Your task to perform on an android device: Open Reddit.com Image 0: 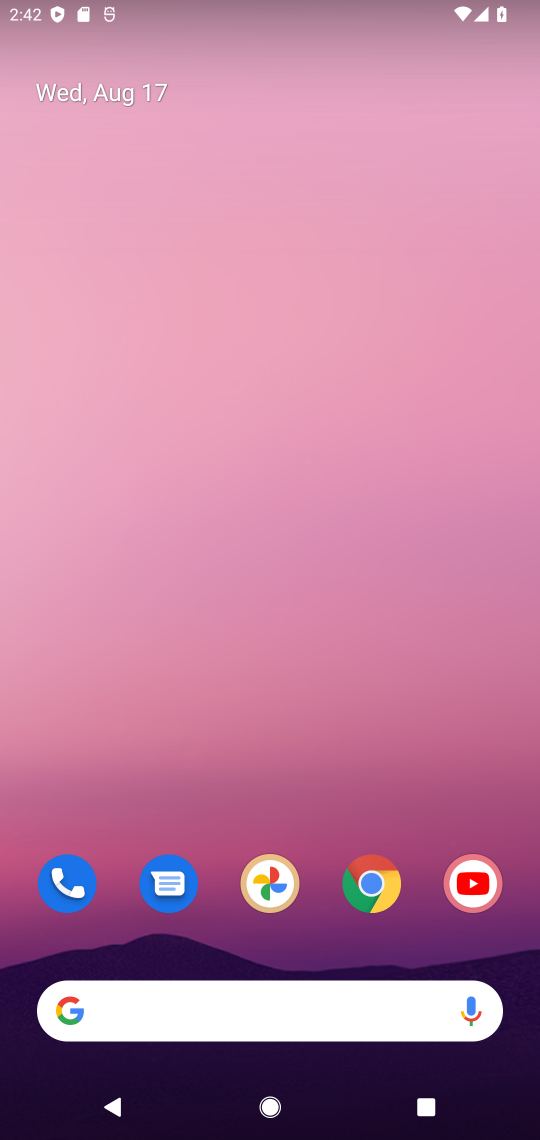
Step 0: drag from (404, 797) to (115, 47)
Your task to perform on an android device: Open Reddit.com Image 1: 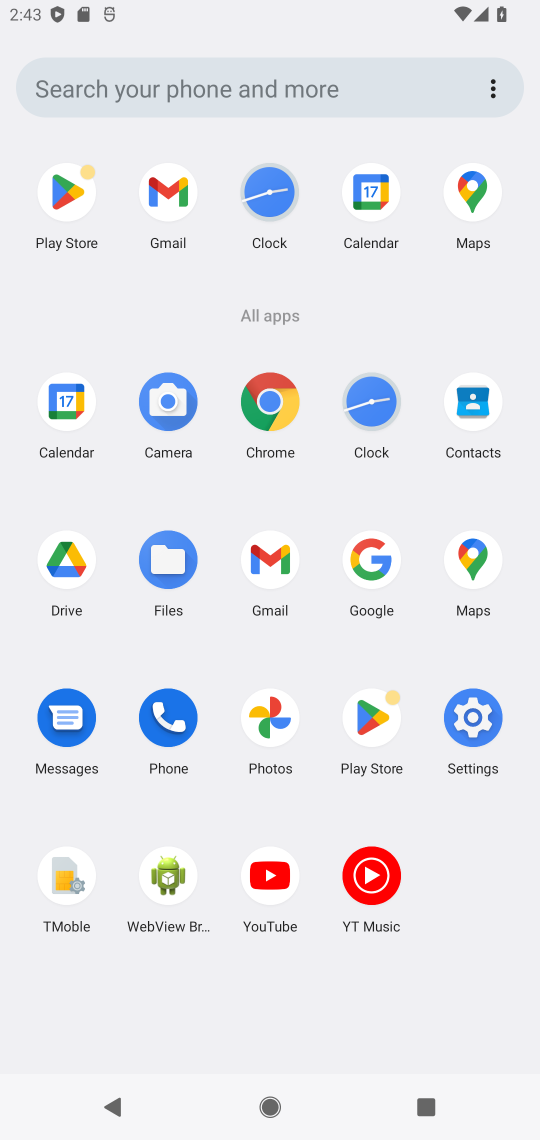
Step 1: click (272, 400)
Your task to perform on an android device: Open Reddit.com Image 2: 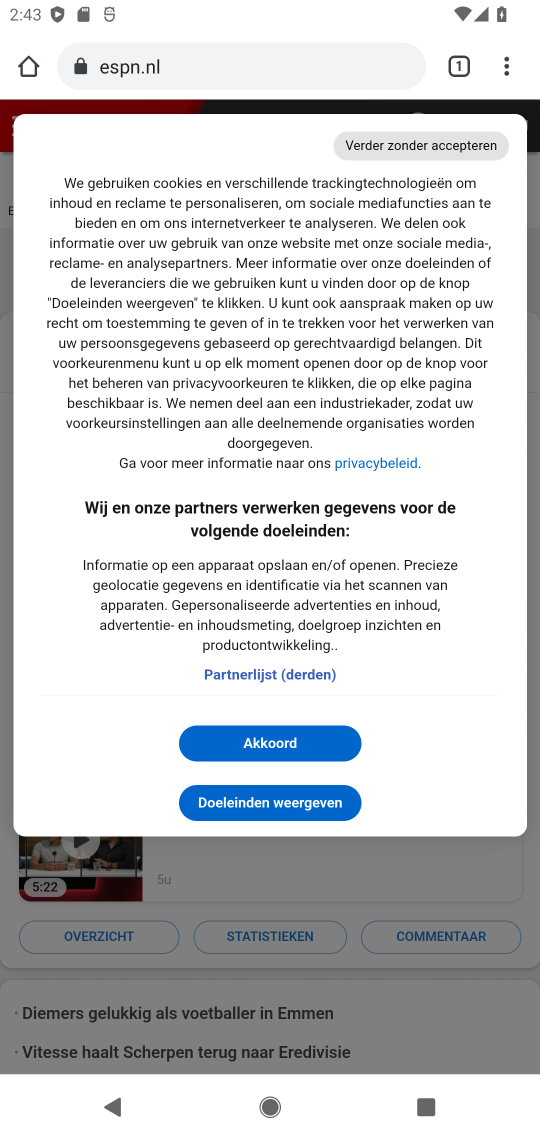
Step 2: click (348, 44)
Your task to perform on an android device: Open Reddit.com Image 3: 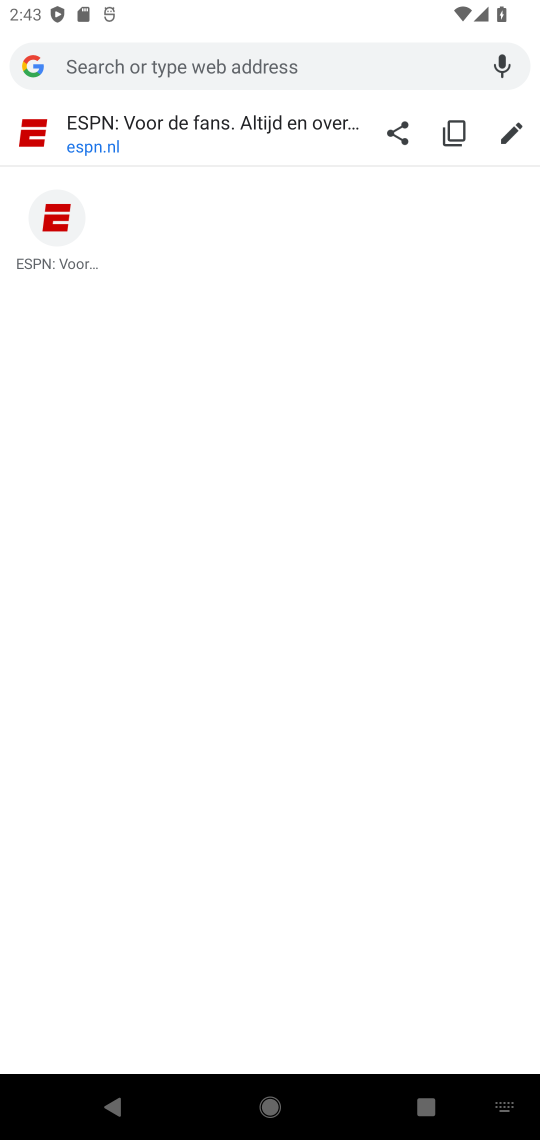
Step 3: type "reddit.com"
Your task to perform on an android device: Open Reddit.com Image 4: 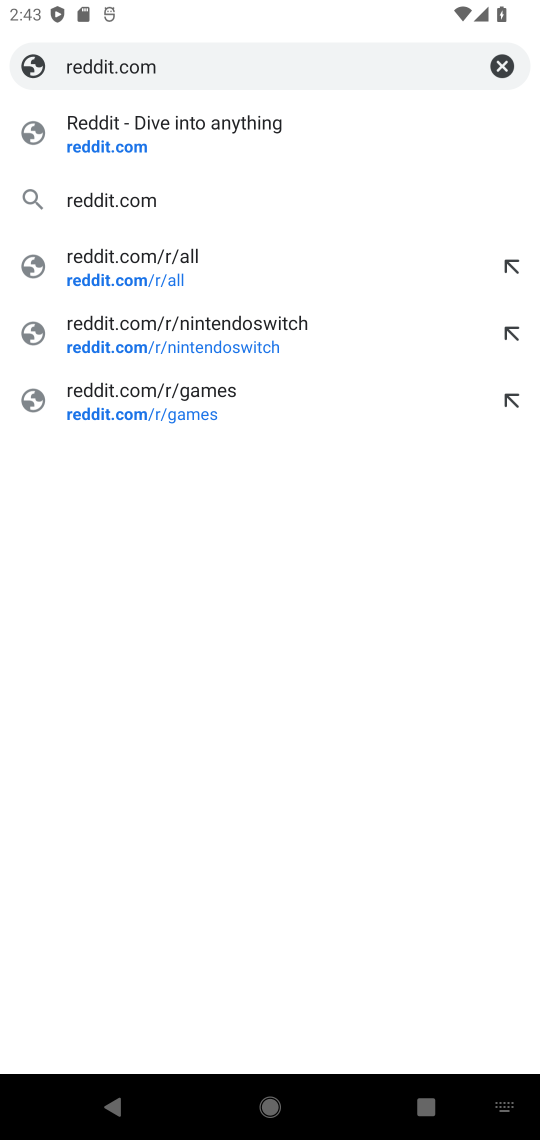
Step 4: click (134, 156)
Your task to perform on an android device: Open Reddit.com Image 5: 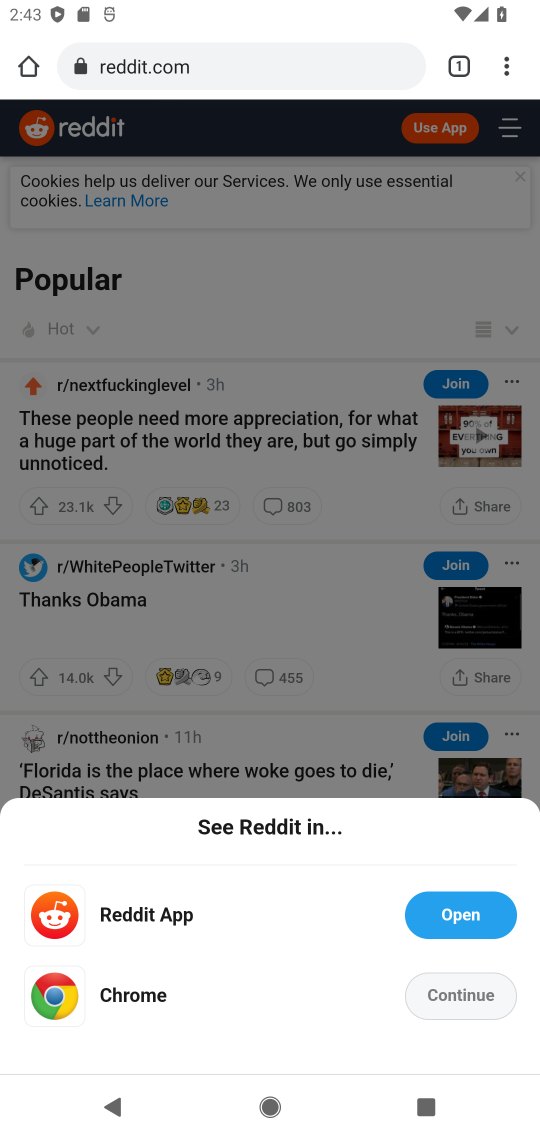
Step 5: task complete